Your task to perform on an android device: Open location settings Image 0: 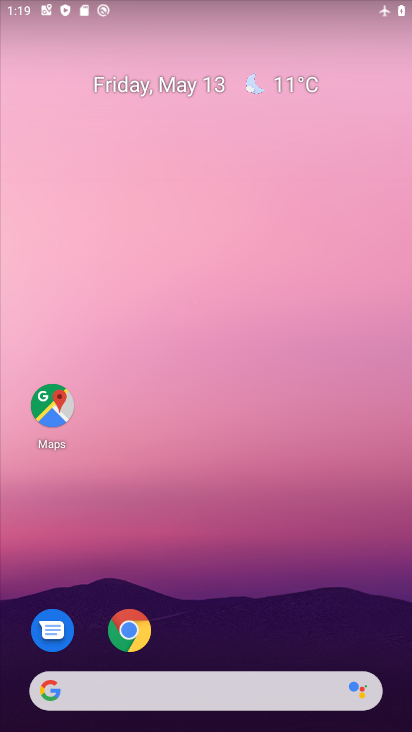
Step 0: drag from (267, 656) to (289, 4)
Your task to perform on an android device: Open location settings Image 1: 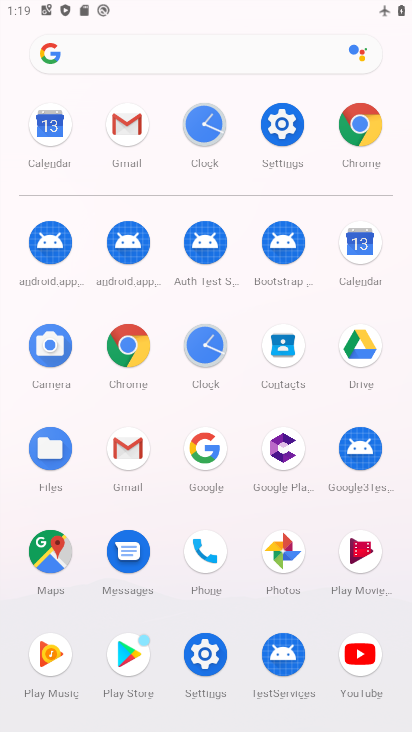
Step 1: click (284, 127)
Your task to perform on an android device: Open location settings Image 2: 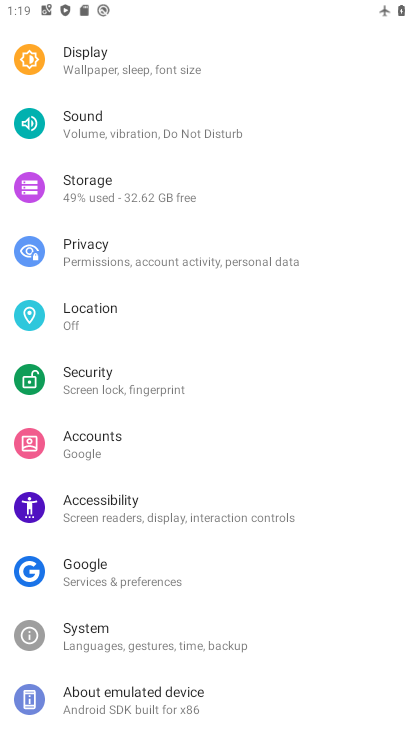
Step 2: click (81, 323)
Your task to perform on an android device: Open location settings Image 3: 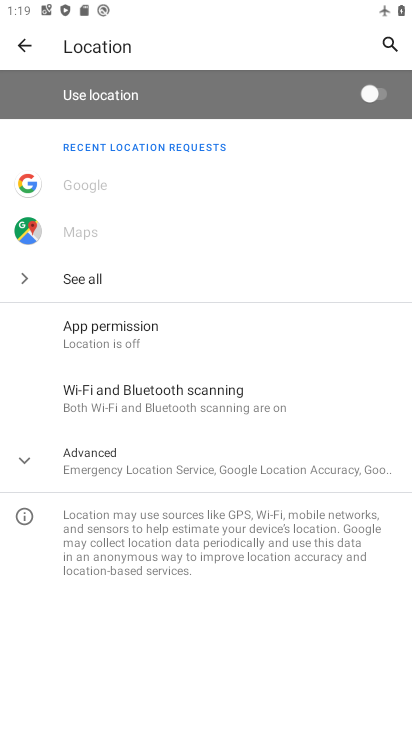
Step 3: task complete